Your task to perform on an android device: turn pop-ups off in chrome Image 0: 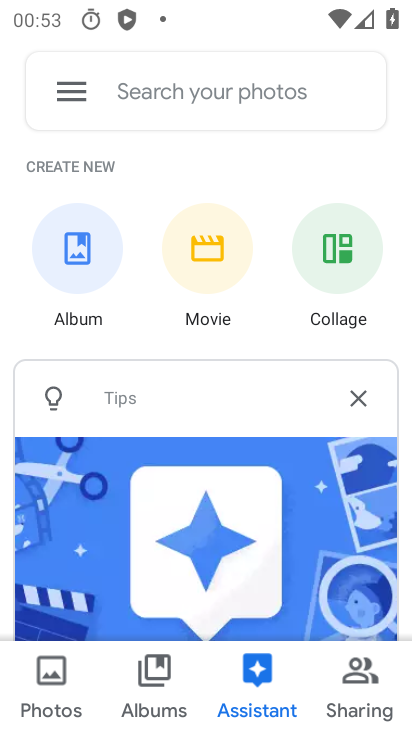
Step 0: press home button
Your task to perform on an android device: turn pop-ups off in chrome Image 1: 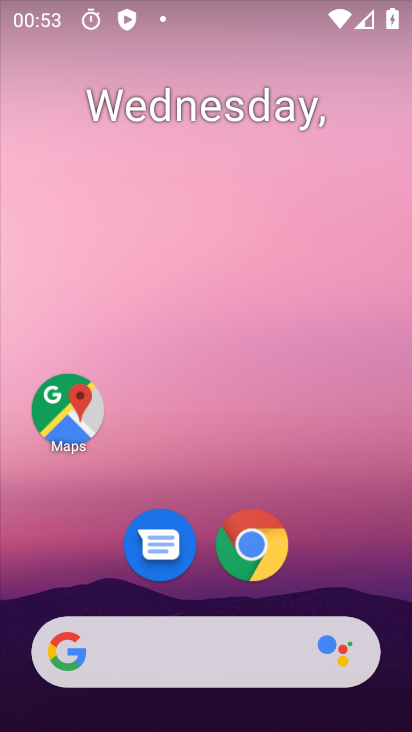
Step 1: click (276, 551)
Your task to perform on an android device: turn pop-ups off in chrome Image 2: 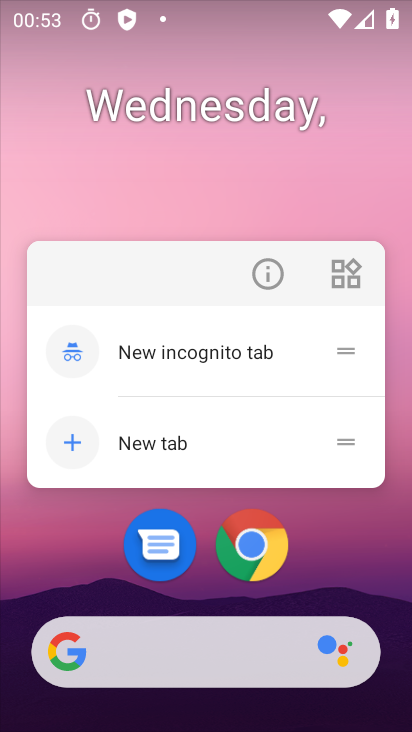
Step 2: click (256, 542)
Your task to perform on an android device: turn pop-ups off in chrome Image 3: 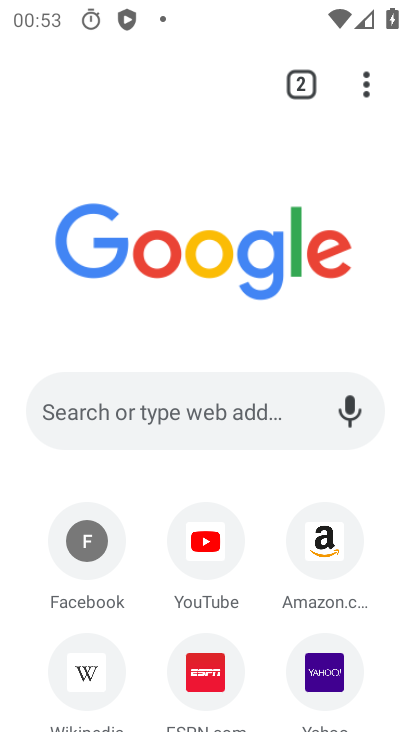
Step 3: drag from (370, 77) to (196, 610)
Your task to perform on an android device: turn pop-ups off in chrome Image 4: 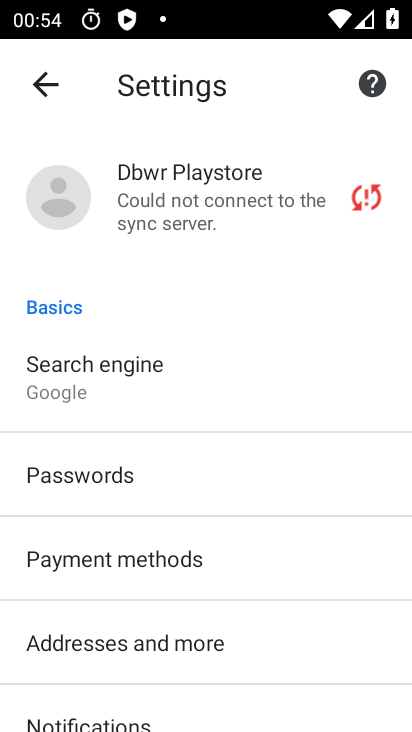
Step 4: drag from (233, 599) to (243, 294)
Your task to perform on an android device: turn pop-ups off in chrome Image 5: 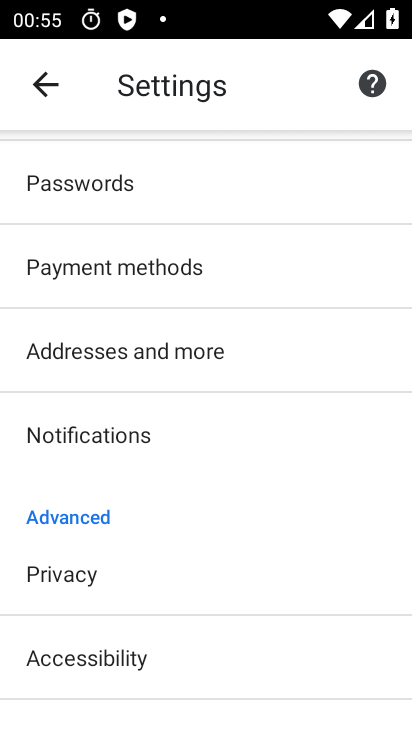
Step 5: drag from (333, 627) to (302, 279)
Your task to perform on an android device: turn pop-ups off in chrome Image 6: 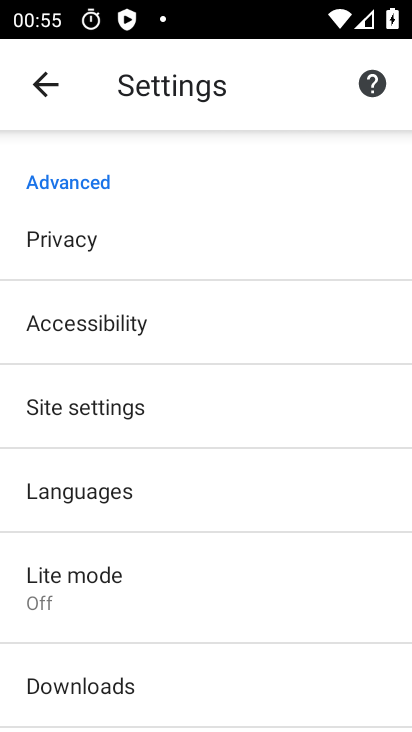
Step 6: click (157, 420)
Your task to perform on an android device: turn pop-ups off in chrome Image 7: 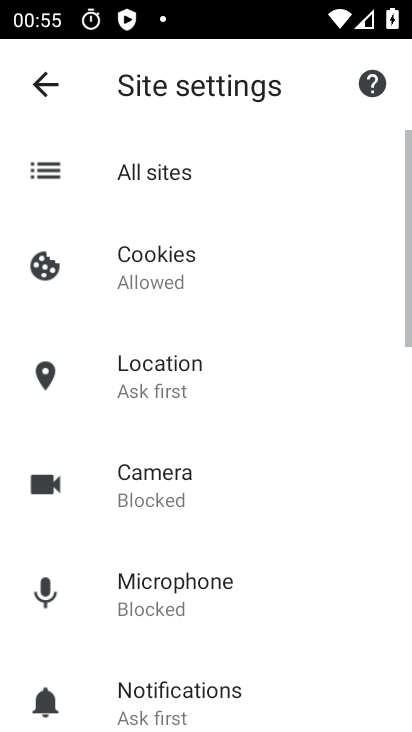
Step 7: drag from (189, 587) to (264, 274)
Your task to perform on an android device: turn pop-ups off in chrome Image 8: 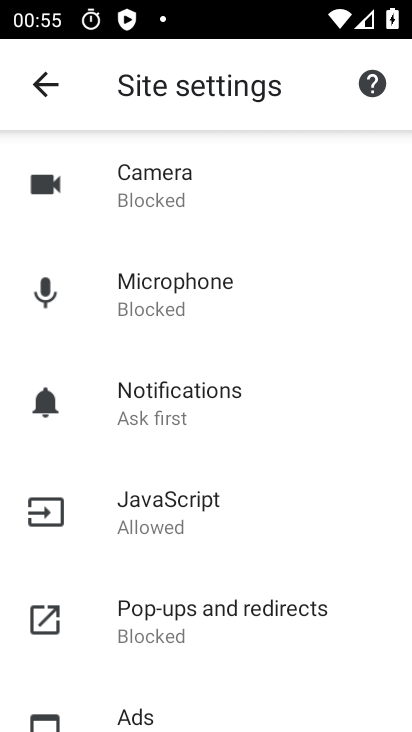
Step 8: click (174, 495)
Your task to perform on an android device: turn pop-ups off in chrome Image 9: 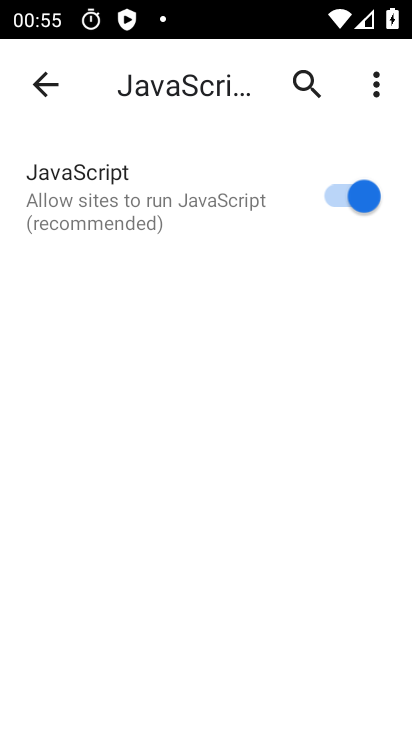
Step 9: click (56, 87)
Your task to perform on an android device: turn pop-ups off in chrome Image 10: 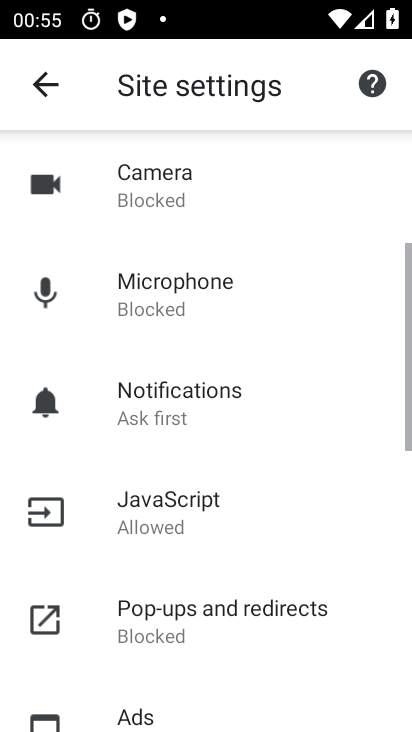
Step 10: click (166, 631)
Your task to perform on an android device: turn pop-ups off in chrome Image 11: 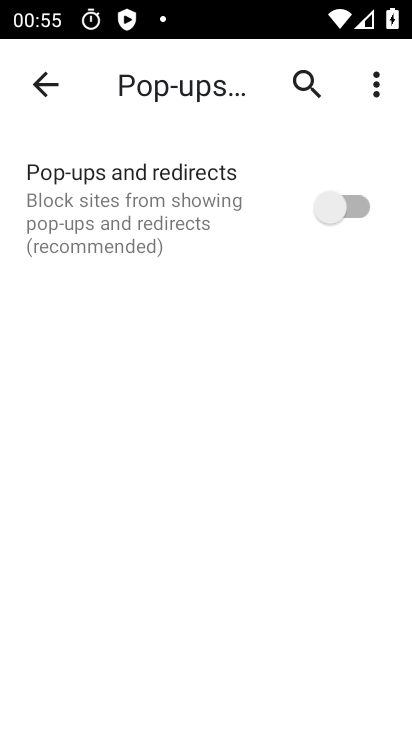
Step 11: task complete